Your task to perform on an android device: Open the phone app and click the voicemail tab. Image 0: 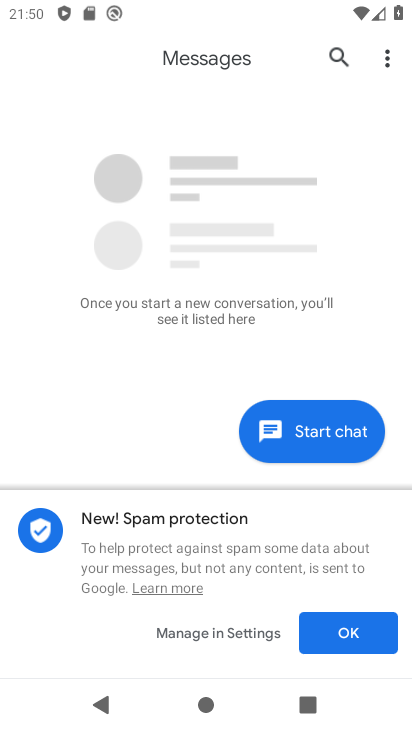
Step 0: press home button
Your task to perform on an android device: Open the phone app and click the voicemail tab. Image 1: 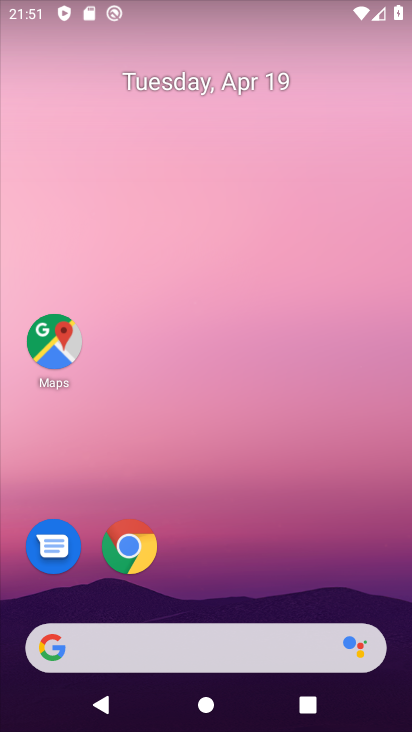
Step 1: drag from (210, 609) to (198, 52)
Your task to perform on an android device: Open the phone app and click the voicemail tab. Image 2: 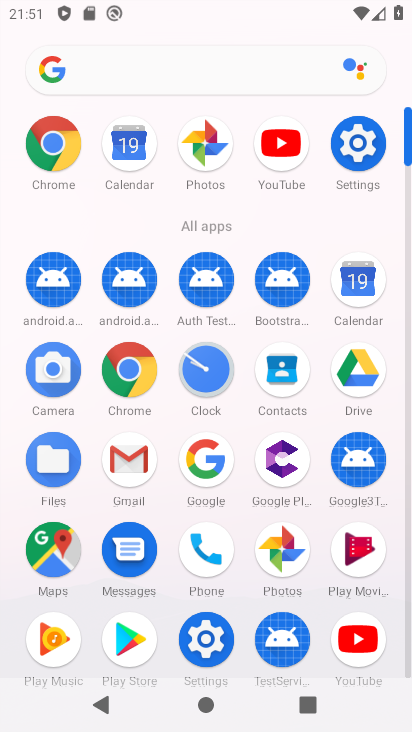
Step 2: click (190, 545)
Your task to perform on an android device: Open the phone app and click the voicemail tab. Image 3: 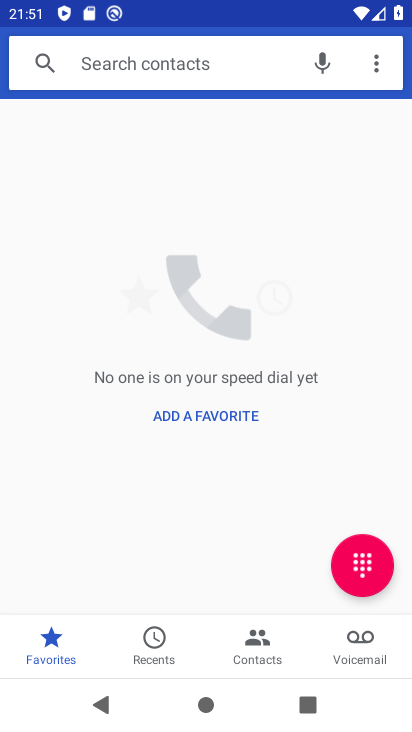
Step 3: click (369, 653)
Your task to perform on an android device: Open the phone app and click the voicemail tab. Image 4: 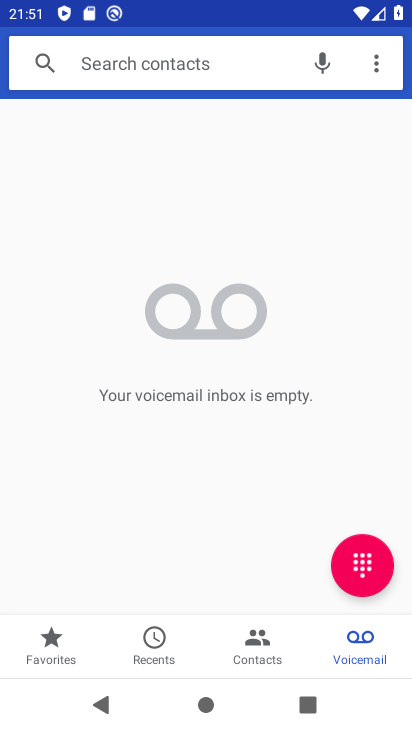
Step 4: task complete